Your task to perform on an android device: uninstall "Spotify" Image 0: 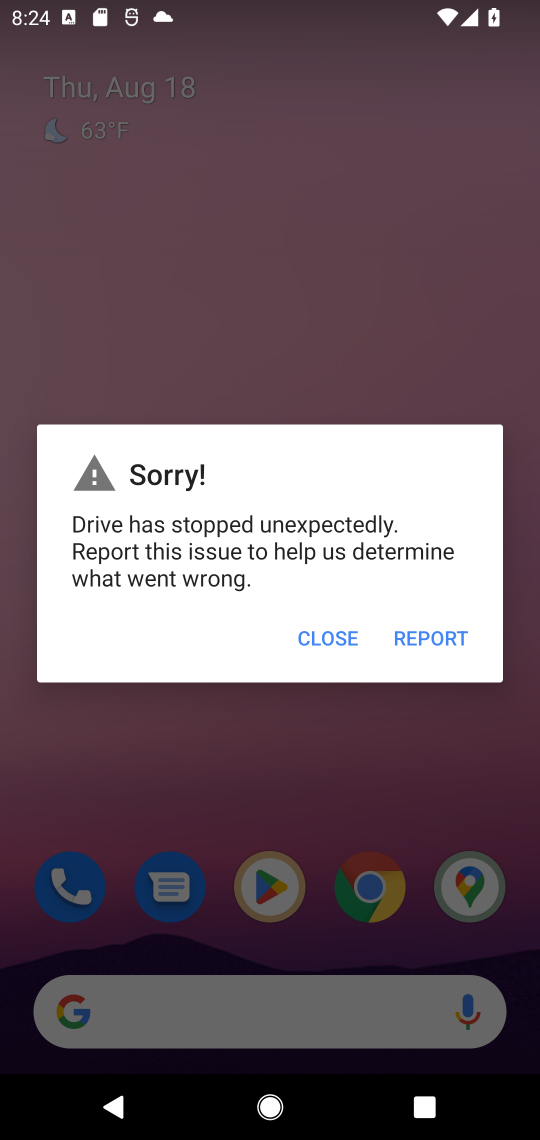
Step 0: press home button
Your task to perform on an android device: uninstall "Spotify" Image 1: 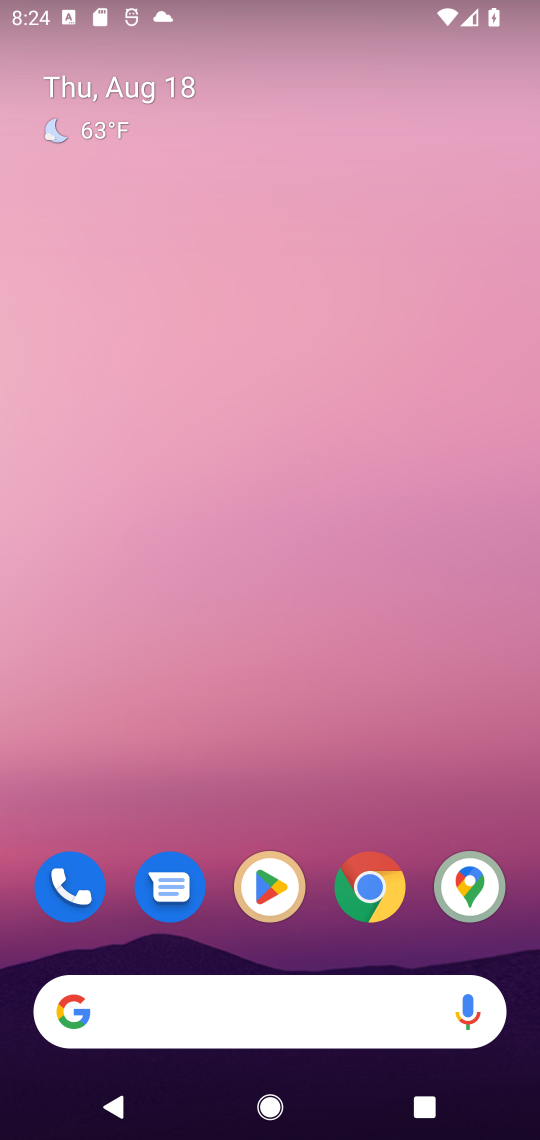
Step 1: click (272, 892)
Your task to perform on an android device: uninstall "Spotify" Image 2: 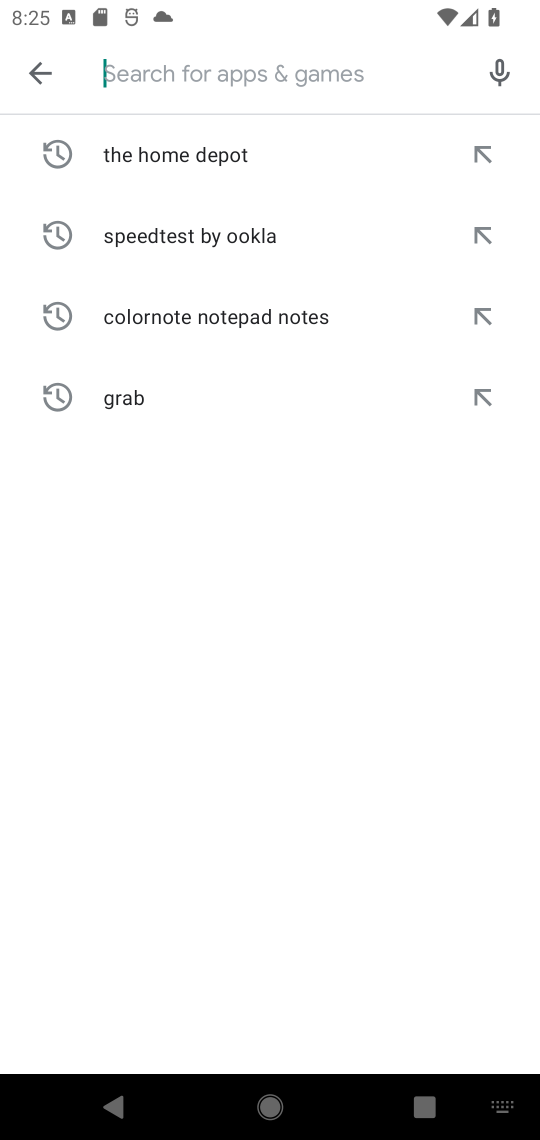
Step 2: type "Spotify"
Your task to perform on an android device: uninstall "Spotify" Image 3: 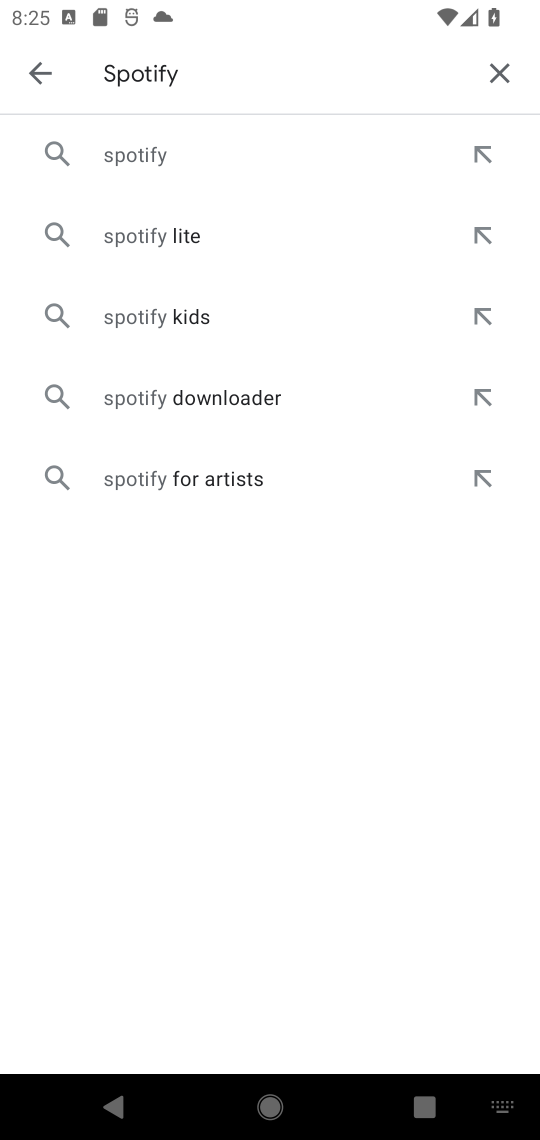
Step 3: click (158, 150)
Your task to perform on an android device: uninstall "Spotify" Image 4: 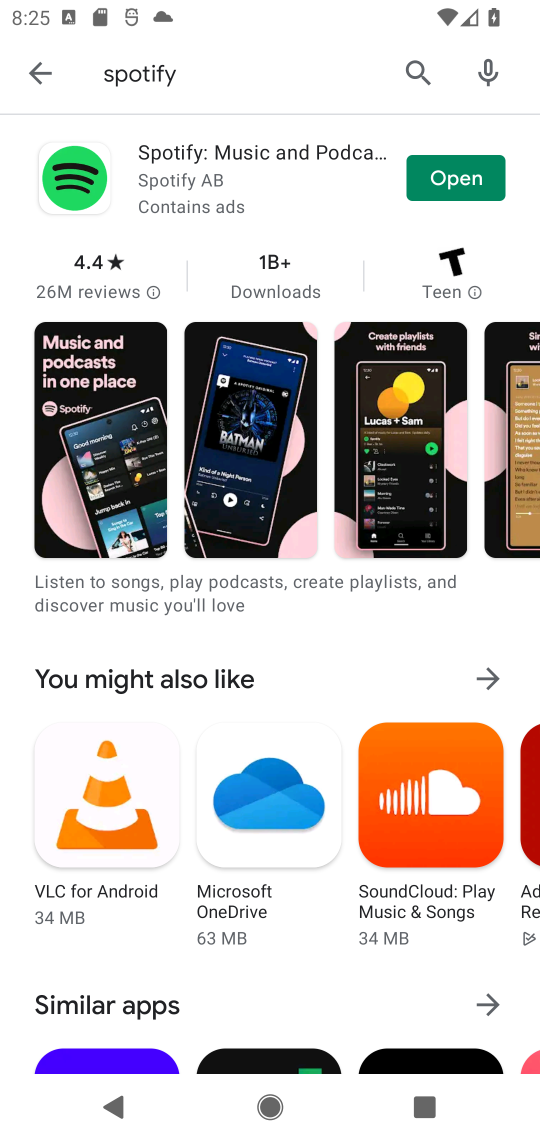
Step 4: click (175, 151)
Your task to perform on an android device: uninstall "Spotify" Image 5: 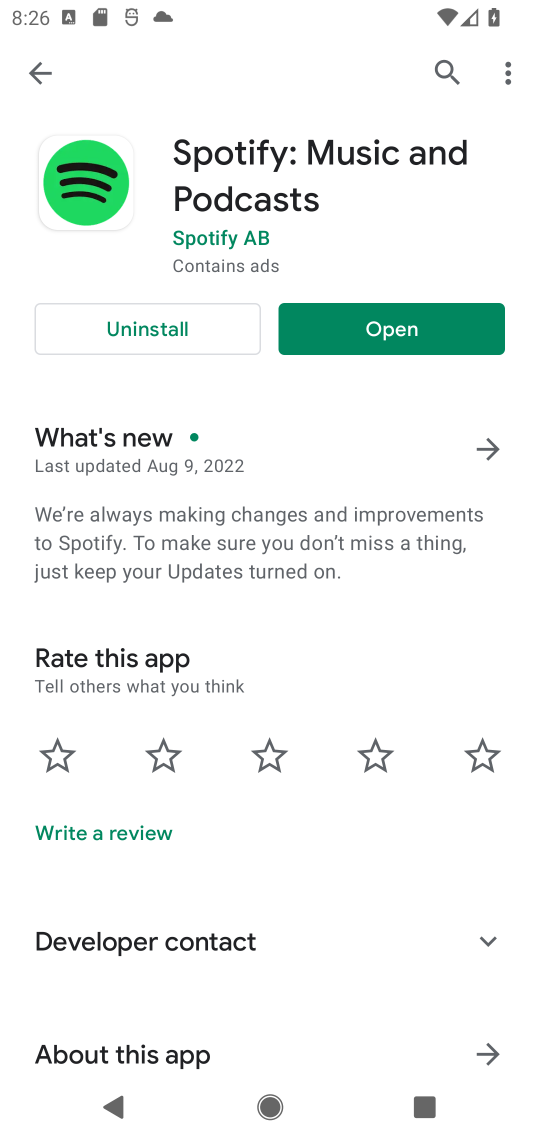
Step 5: click (167, 339)
Your task to perform on an android device: uninstall "Spotify" Image 6: 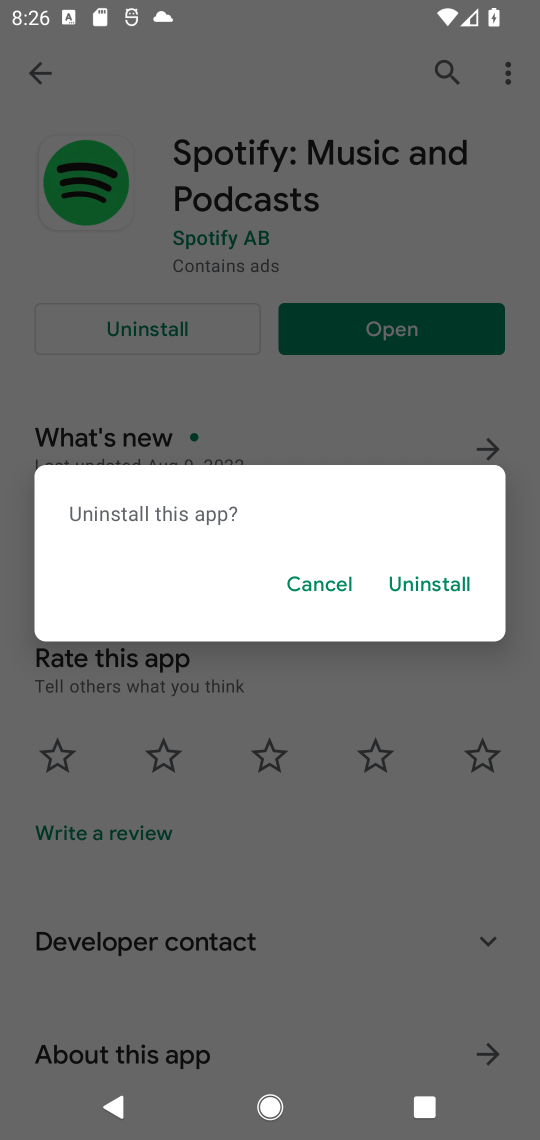
Step 6: click (425, 587)
Your task to perform on an android device: uninstall "Spotify" Image 7: 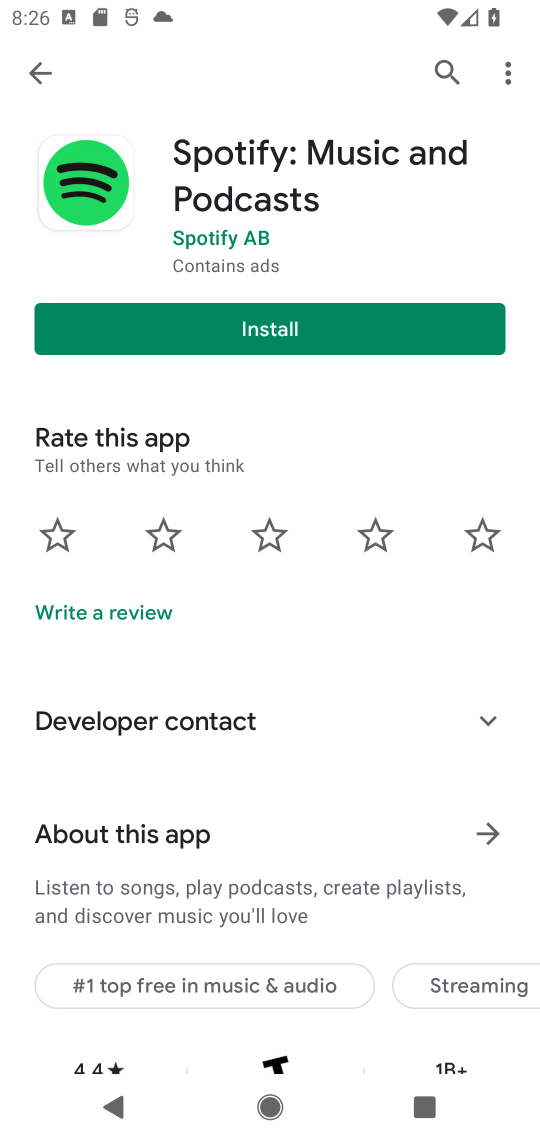
Step 7: task complete